Your task to perform on an android device: clear all cookies in the chrome app Image 0: 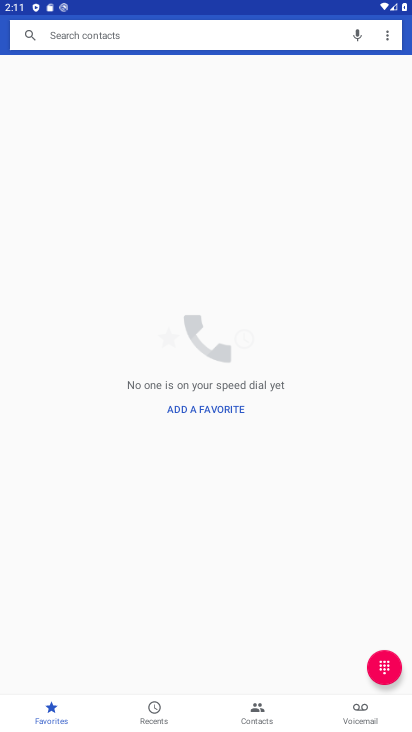
Step 0: press home button
Your task to perform on an android device: clear all cookies in the chrome app Image 1: 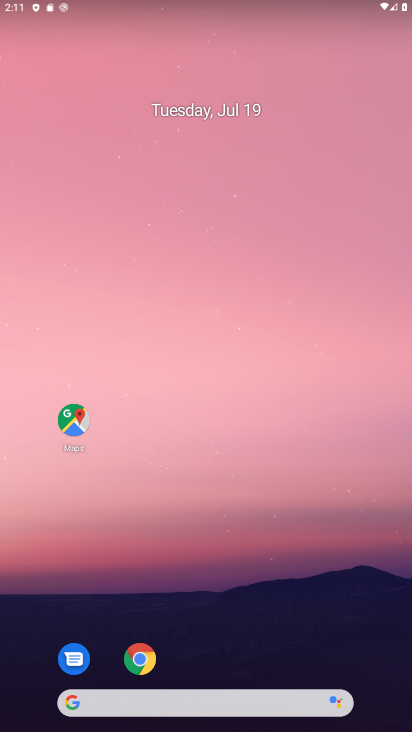
Step 1: drag from (263, 631) to (245, 200)
Your task to perform on an android device: clear all cookies in the chrome app Image 2: 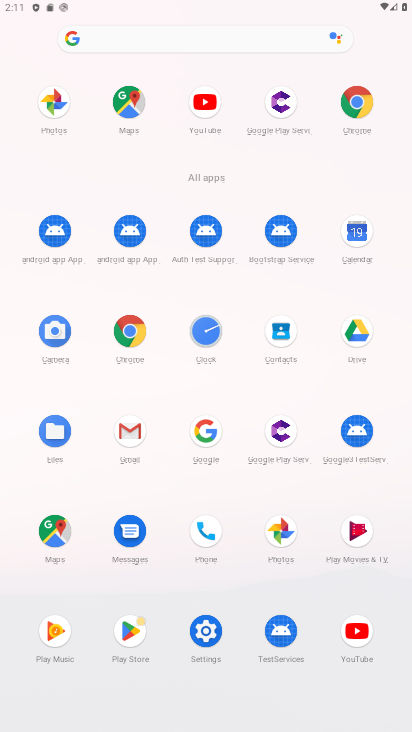
Step 2: click (357, 113)
Your task to perform on an android device: clear all cookies in the chrome app Image 3: 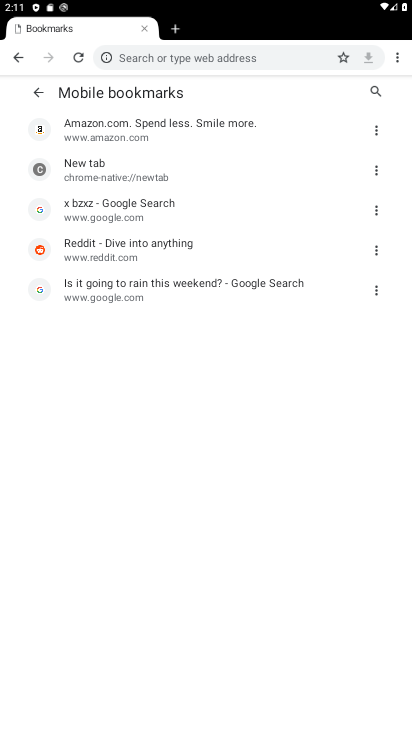
Step 3: click (396, 60)
Your task to perform on an android device: clear all cookies in the chrome app Image 4: 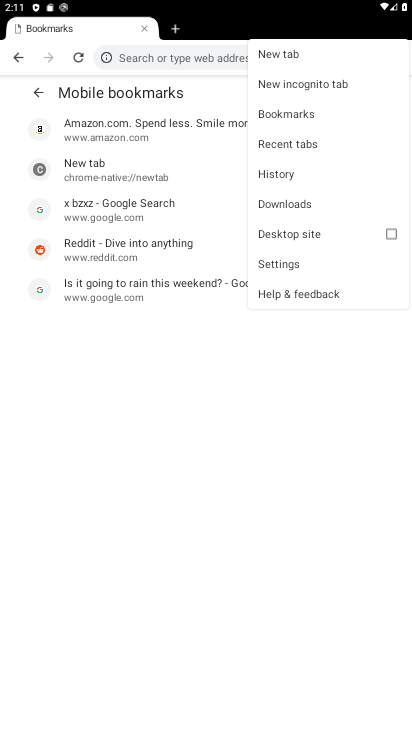
Step 4: click (300, 172)
Your task to perform on an android device: clear all cookies in the chrome app Image 5: 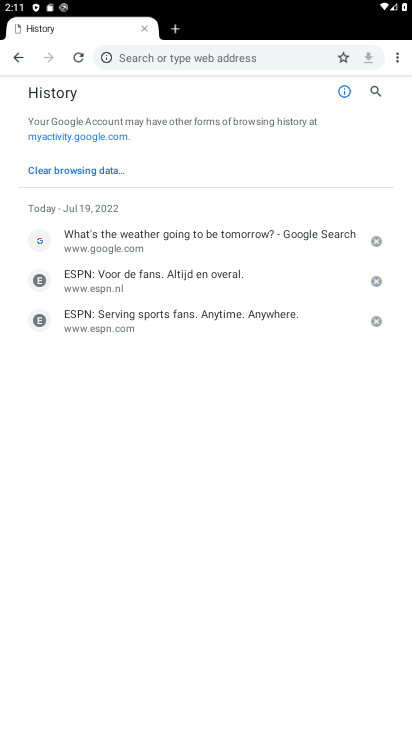
Step 5: click (79, 174)
Your task to perform on an android device: clear all cookies in the chrome app Image 6: 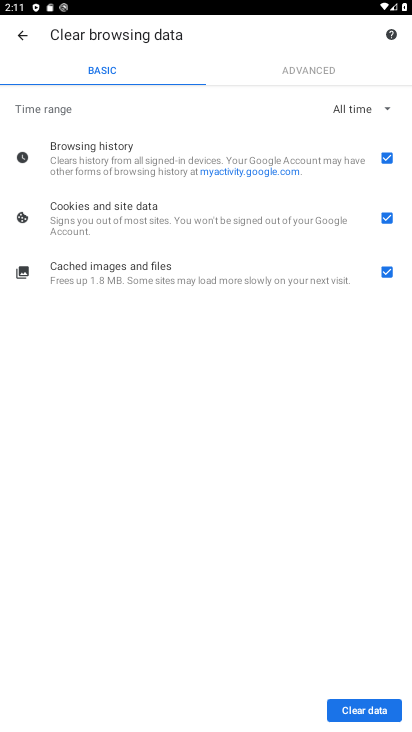
Step 6: click (388, 273)
Your task to perform on an android device: clear all cookies in the chrome app Image 7: 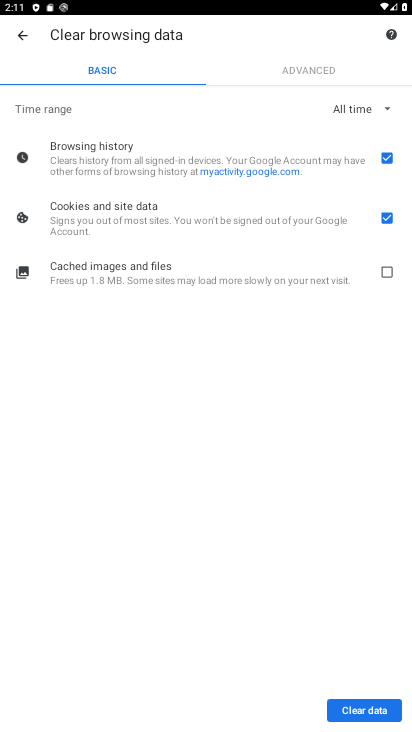
Step 7: click (381, 165)
Your task to perform on an android device: clear all cookies in the chrome app Image 8: 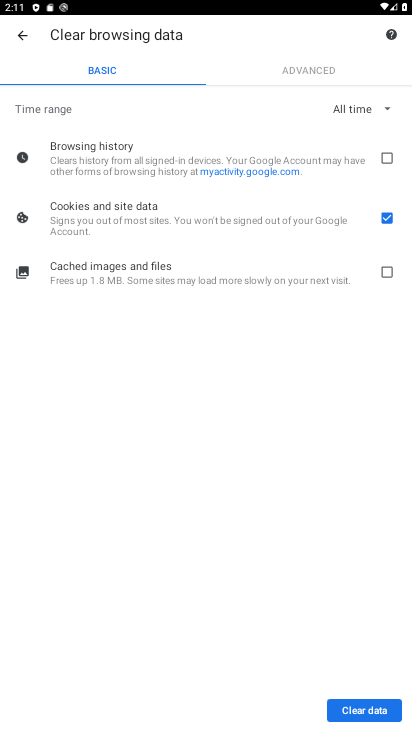
Step 8: click (378, 708)
Your task to perform on an android device: clear all cookies in the chrome app Image 9: 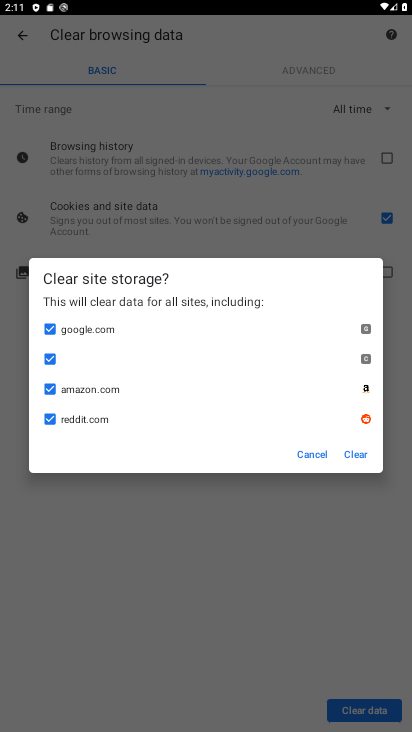
Step 9: click (354, 457)
Your task to perform on an android device: clear all cookies in the chrome app Image 10: 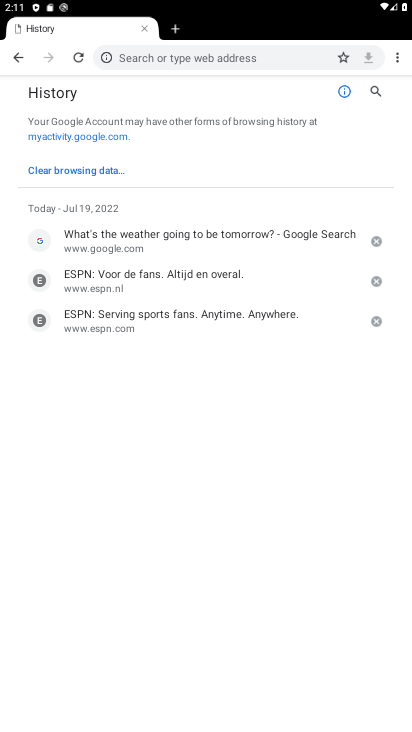
Step 10: task complete